Your task to perform on an android device: turn on sleep mode Image 0: 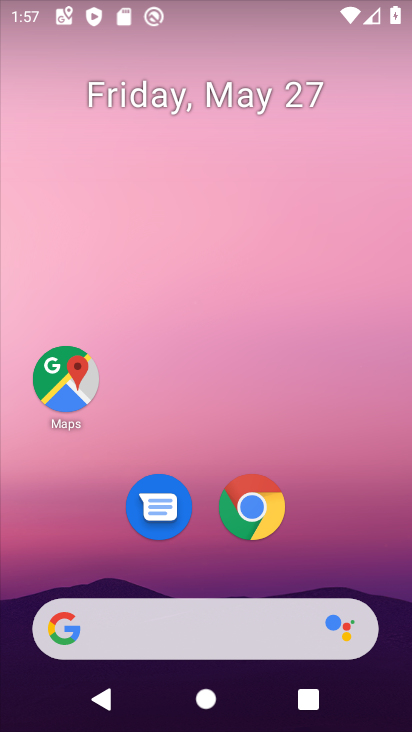
Step 0: drag from (220, 541) to (249, 20)
Your task to perform on an android device: turn on sleep mode Image 1: 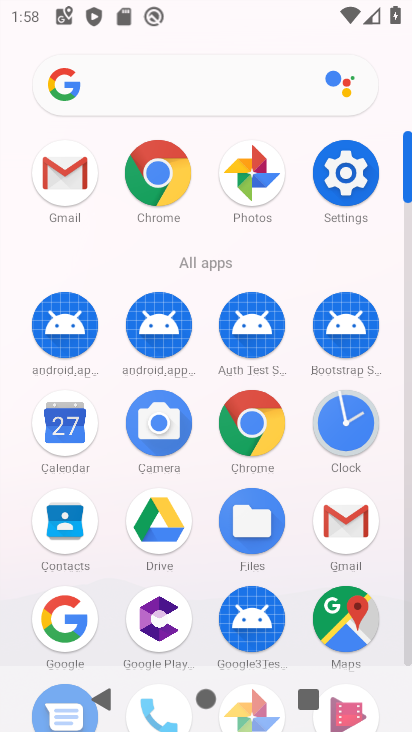
Step 1: click (344, 144)
Your task to perform on an android device: turn on sleep mode Image 2: 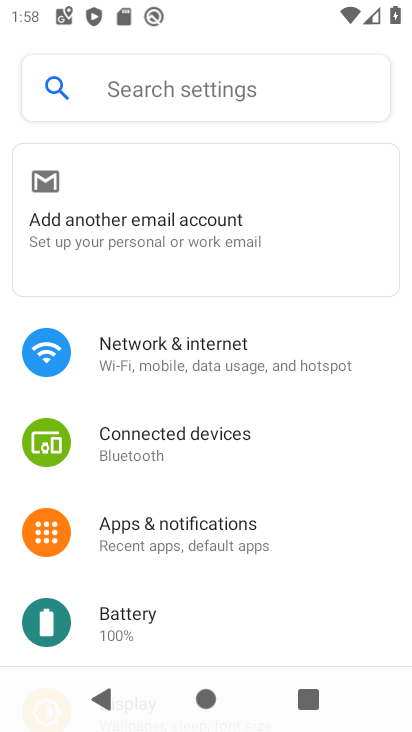
Step 2: drag from (194, 500) to (308, 93)
Your task to perform on an android device: turn on sleep mode Image 3: 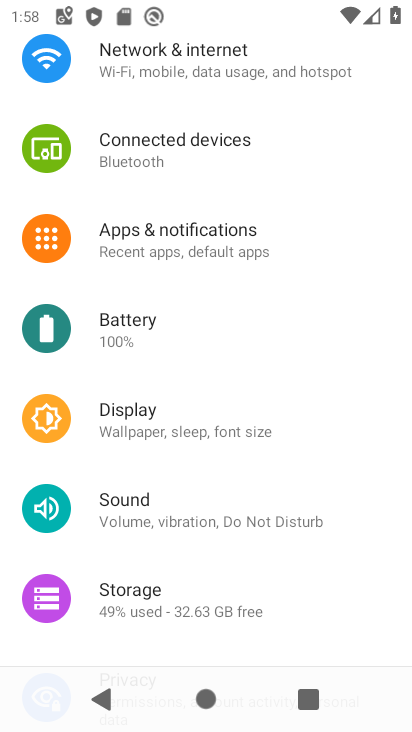
Step 3: drag from (258, 377) to (323, 172)
Your task to perform on an android device: turn on sleep mode Image 4: 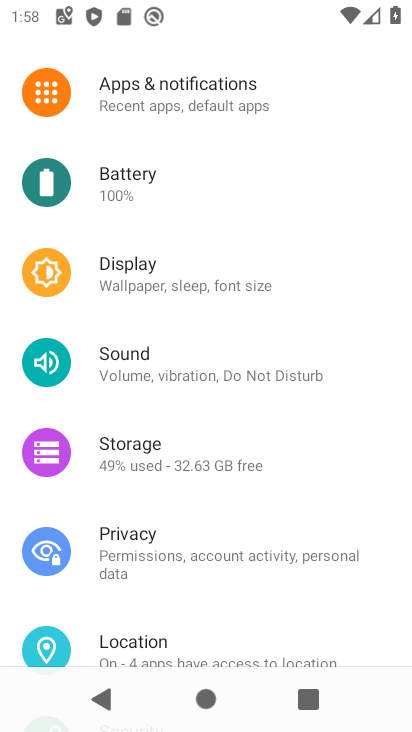
Step 4: click (161, 271)
Your task to perform on an android device: turn on sleep mode Image 5: 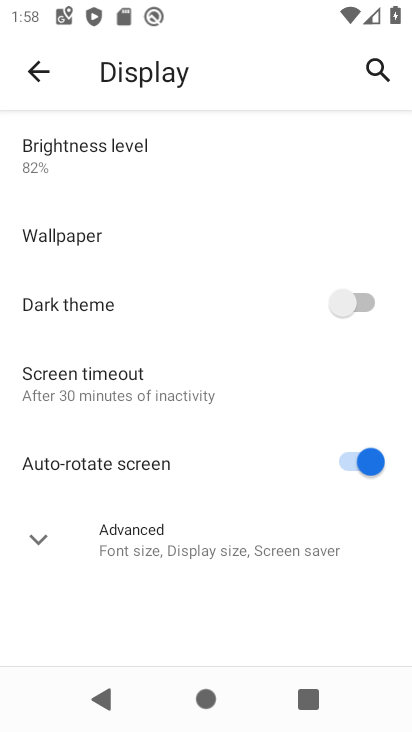
Step 5: click (126, 392)
Your task to perform on an android device: turn on sleep mode Image 6: 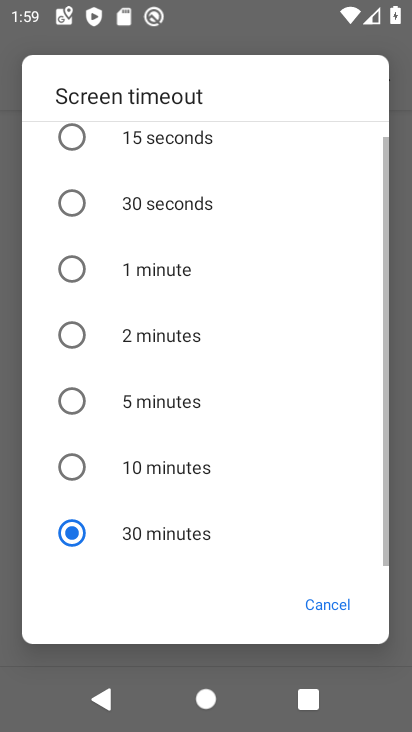
Step 6: task complete